Your task to perform on an android device: turn on sleep mode Image 0: 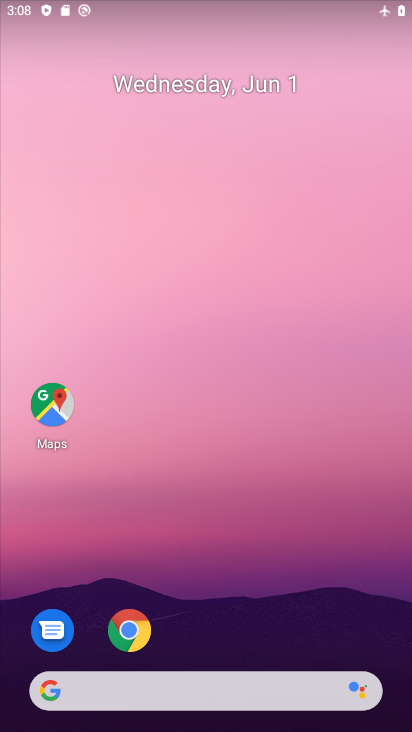
Step 0: press home button
Your task to perform on an android device: turn on sleep mode Image 1: 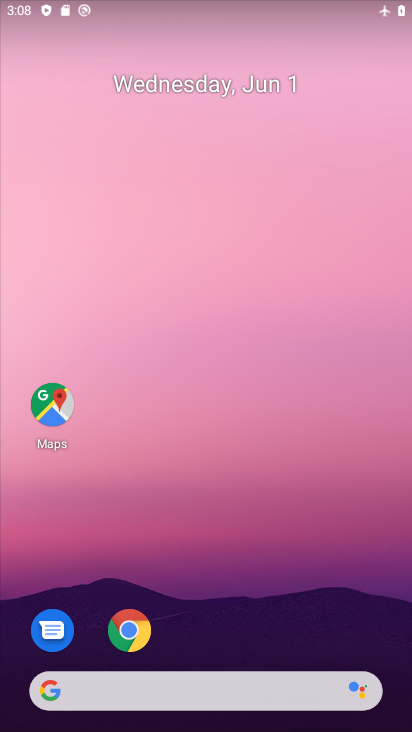
Step 1: drag from (244, 585) to (212, 149)
Your task to perform on an android device: turn on sleep mode Image 2: 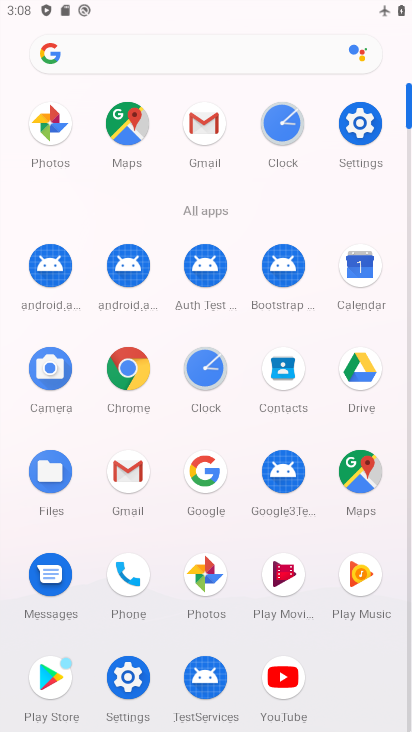
Step 2: click (355, 116)
Your task to perform on an android device: turn on sleep mode Image 3: 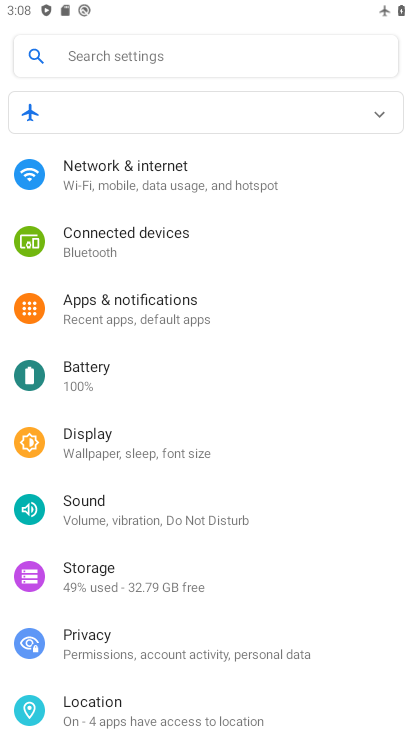
Step 3: click (110, 444)
Your task to perform on an android device: turn on sleep mode Image 4: 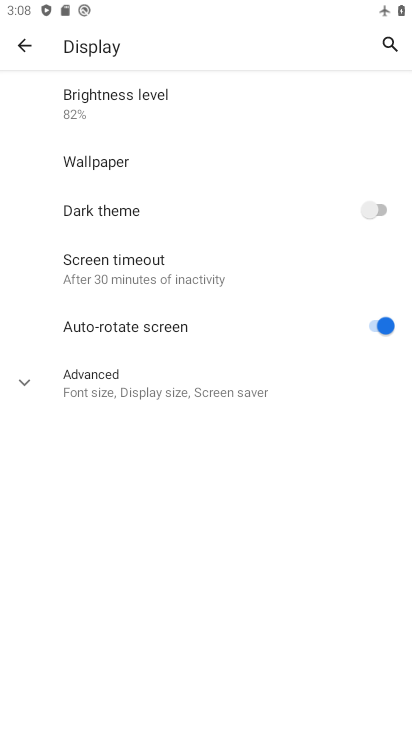
Step 4: task complete